Your task to perform on an android device: Set the phone to "Do not disturb". Image 0: 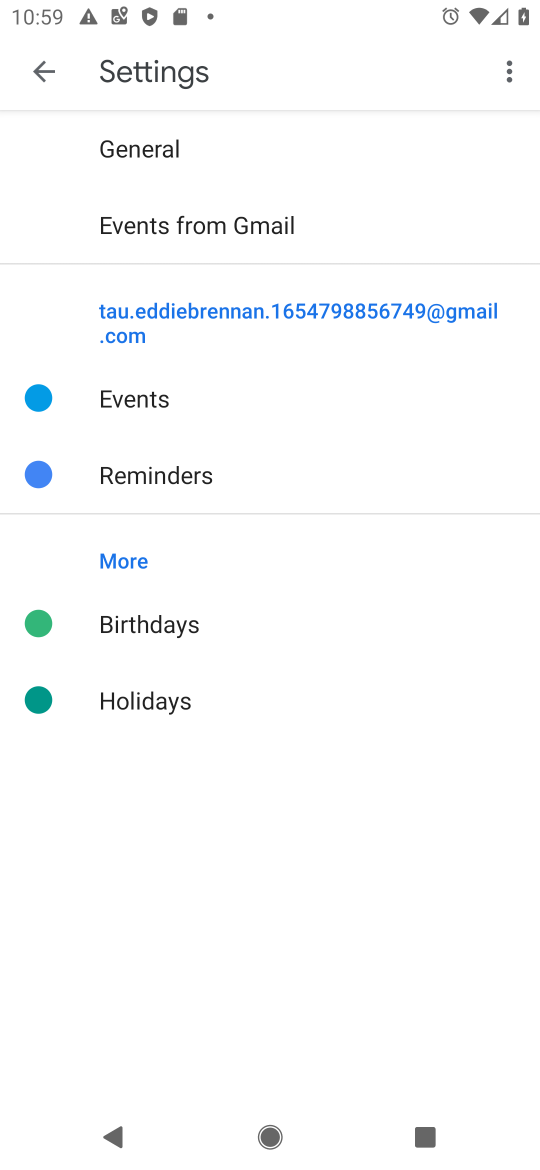
Step 0: press home button
Your task to perform on an android device: Set the phone to "Do not disturb". Image 1: 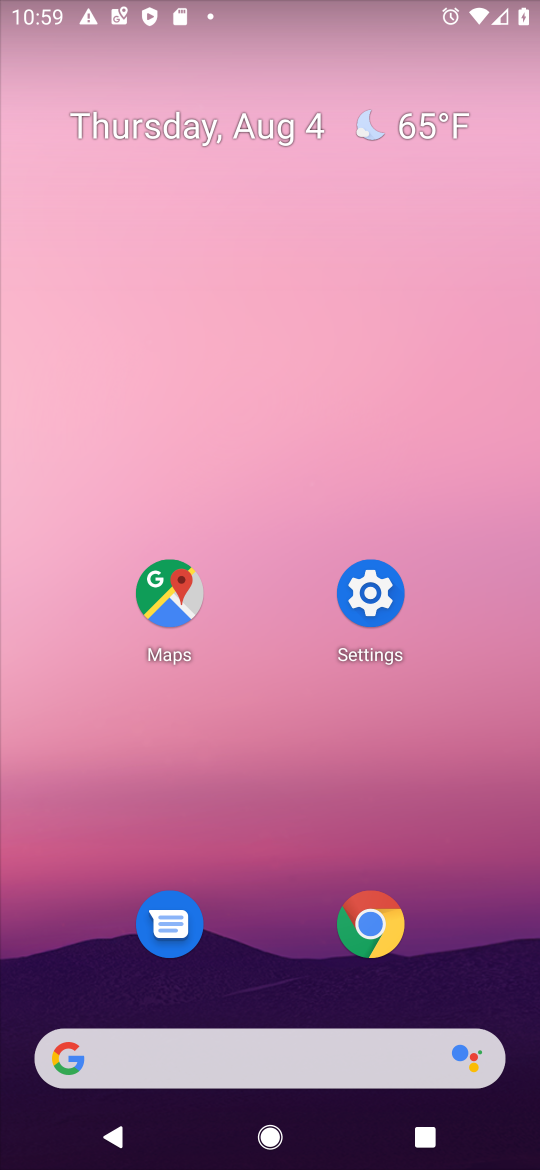
Step 1: click (378, 584)
Your task to perform on an android device: Set the phone to "Do not disturb". Image 2: 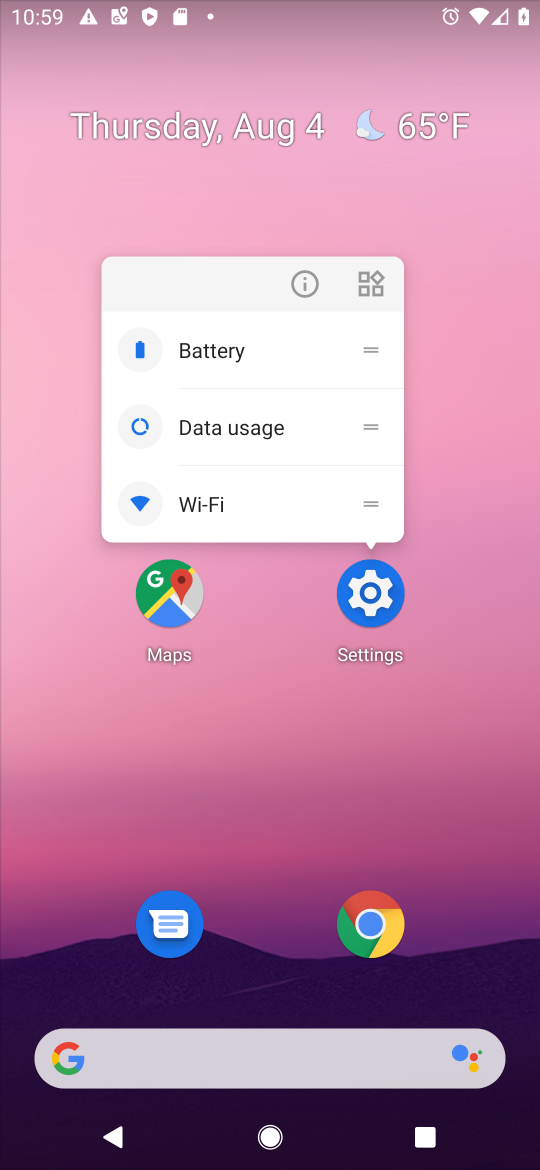
Step 2: click (378, 585)
Your task to perform on an android device: Set the phone to "Do not disturb". Image 3: 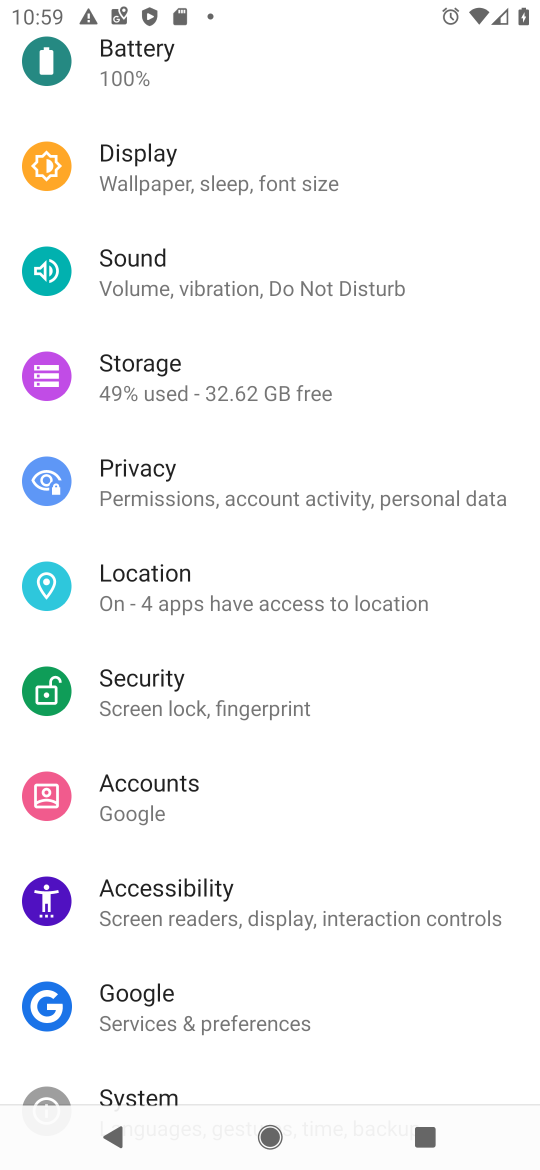
Step 3: drag from (261, 846) to (360, 511)
Your task to perform on an android device: Set the phone to "Do not disturb". Image 4: 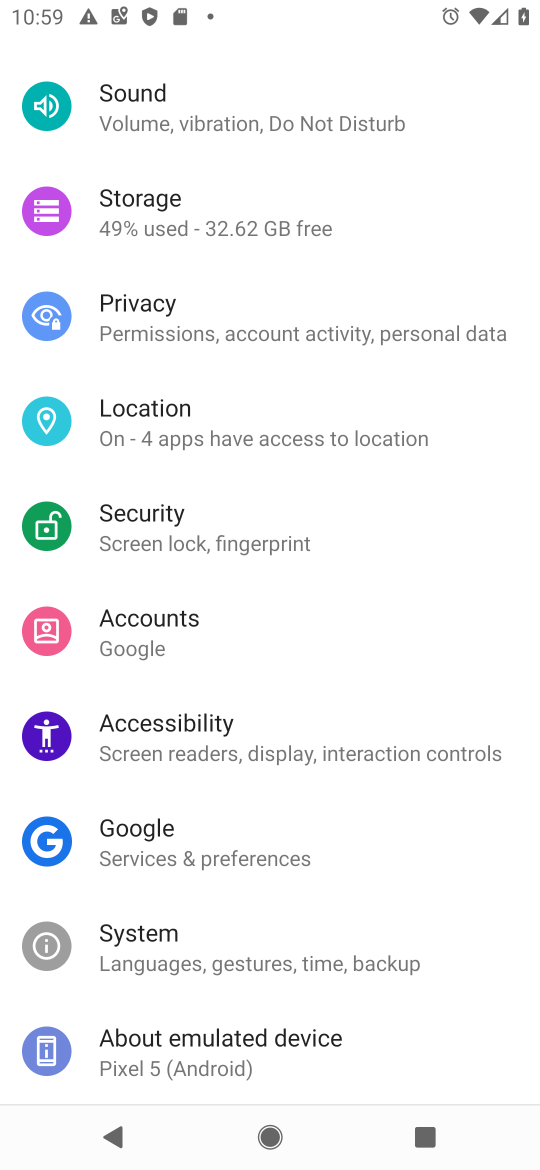
Step 4: click (169, 108)
Your task to perform on an android device: Set the phone to "Do not disturb". Image 5: 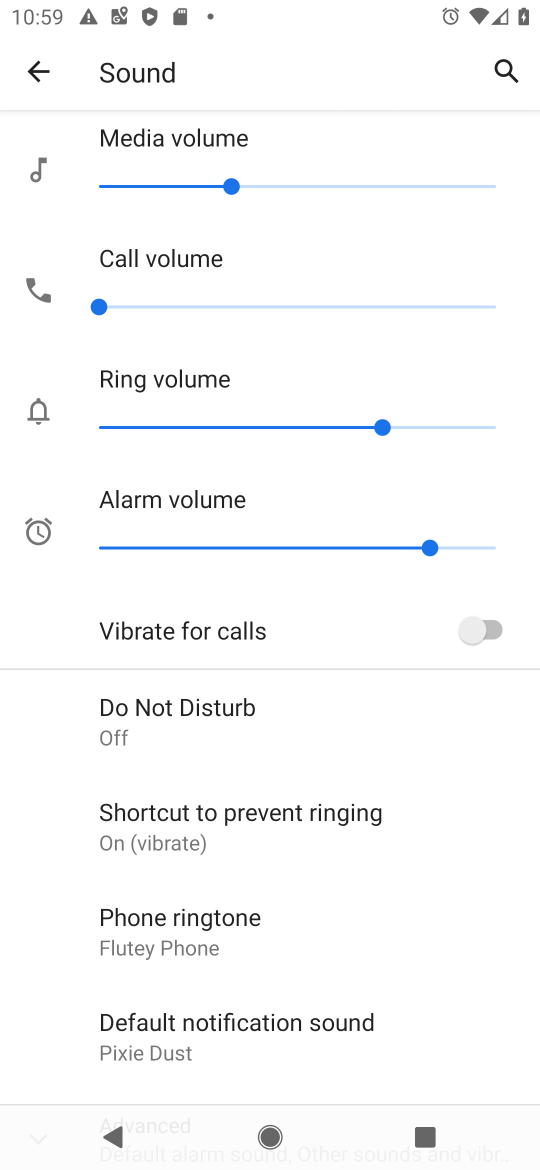
Step 5: click (224, 716)
Your task to perform on an android device: Set the phone to "Do not disturb". Image 6: 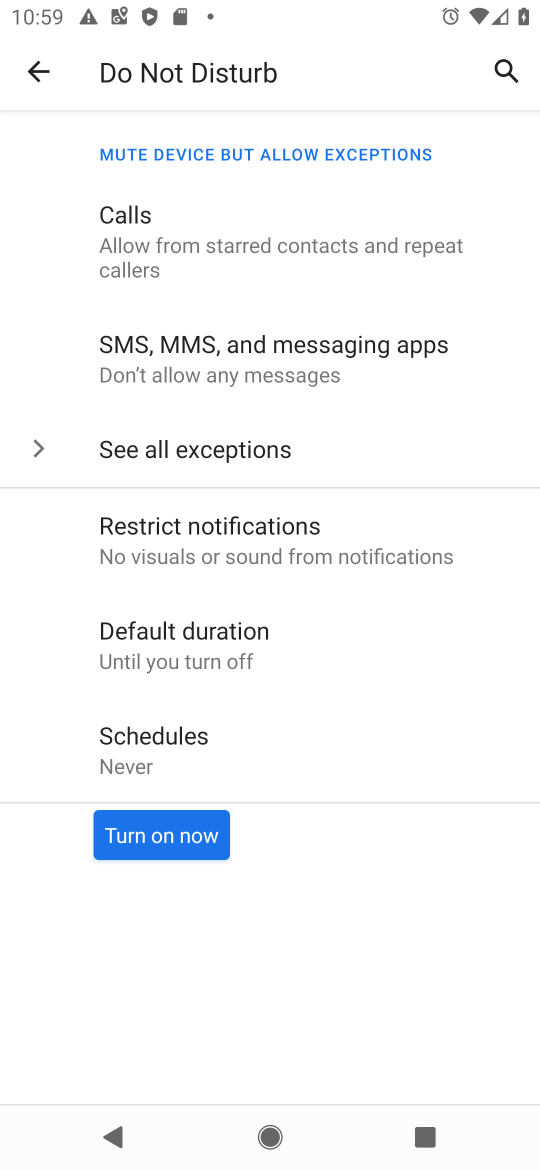
Step 6: click (152, 834)
Your task to perform on an android device: Set the phone to "Do not disturb". Image 7: 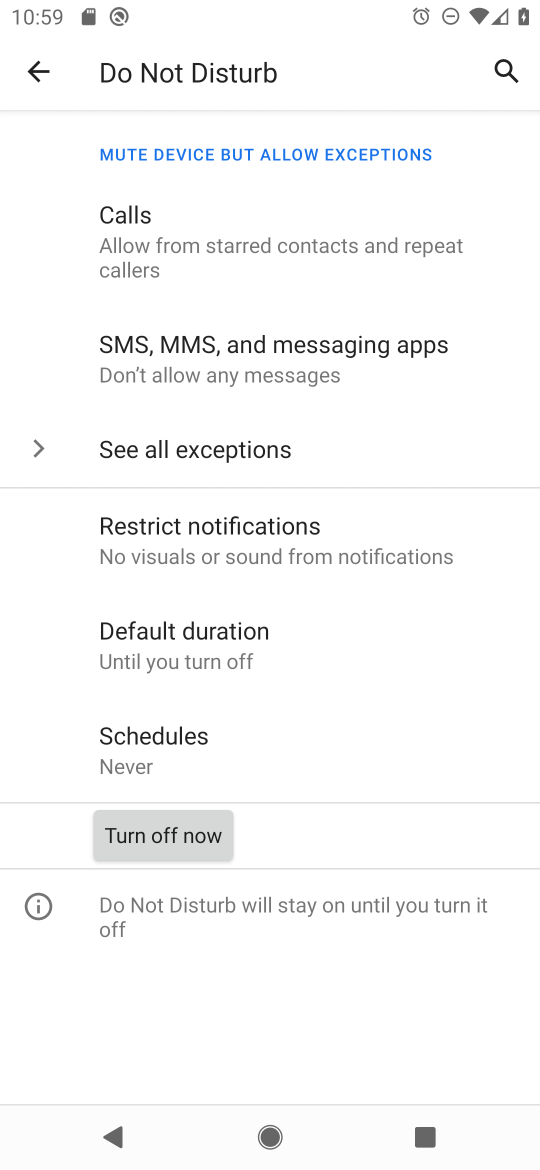
Step 7: task complete